Your task to perform on an android device: Open Reddit.com Image 0: 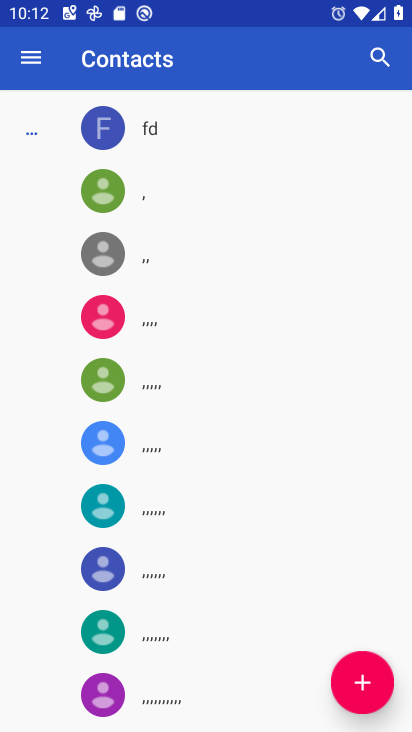
Step 0: press home button
Your task to perform on an android device: Open Reddit.com Image 1: 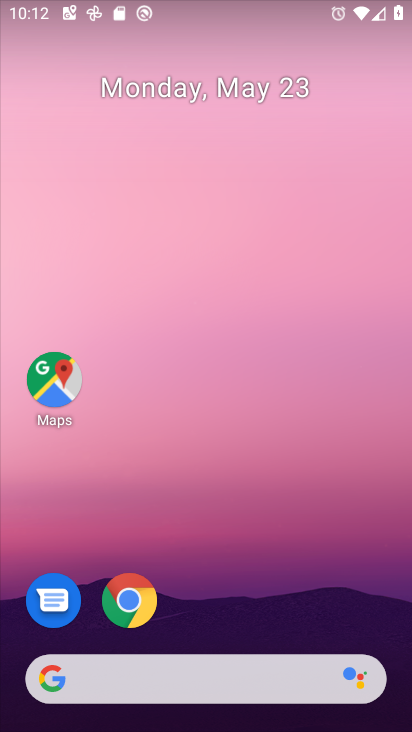
Step 1: click (124, 601)
Your task to perform on an android device: Open Reddit.com Image 2: 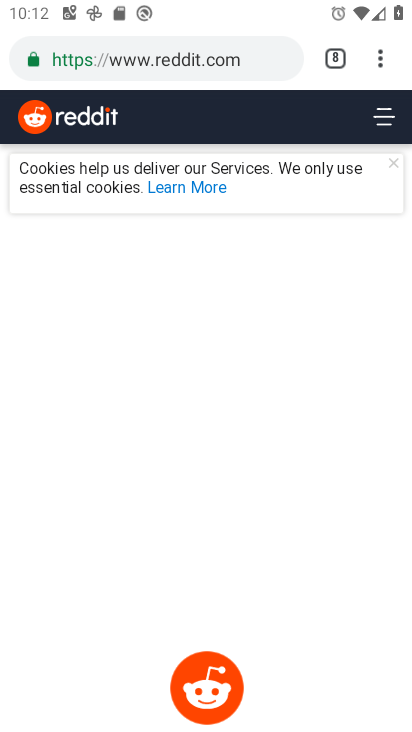
Step 2: task complete